Your task to perform on an android device: What's on the menu at Chick-fil-A? Image 0: 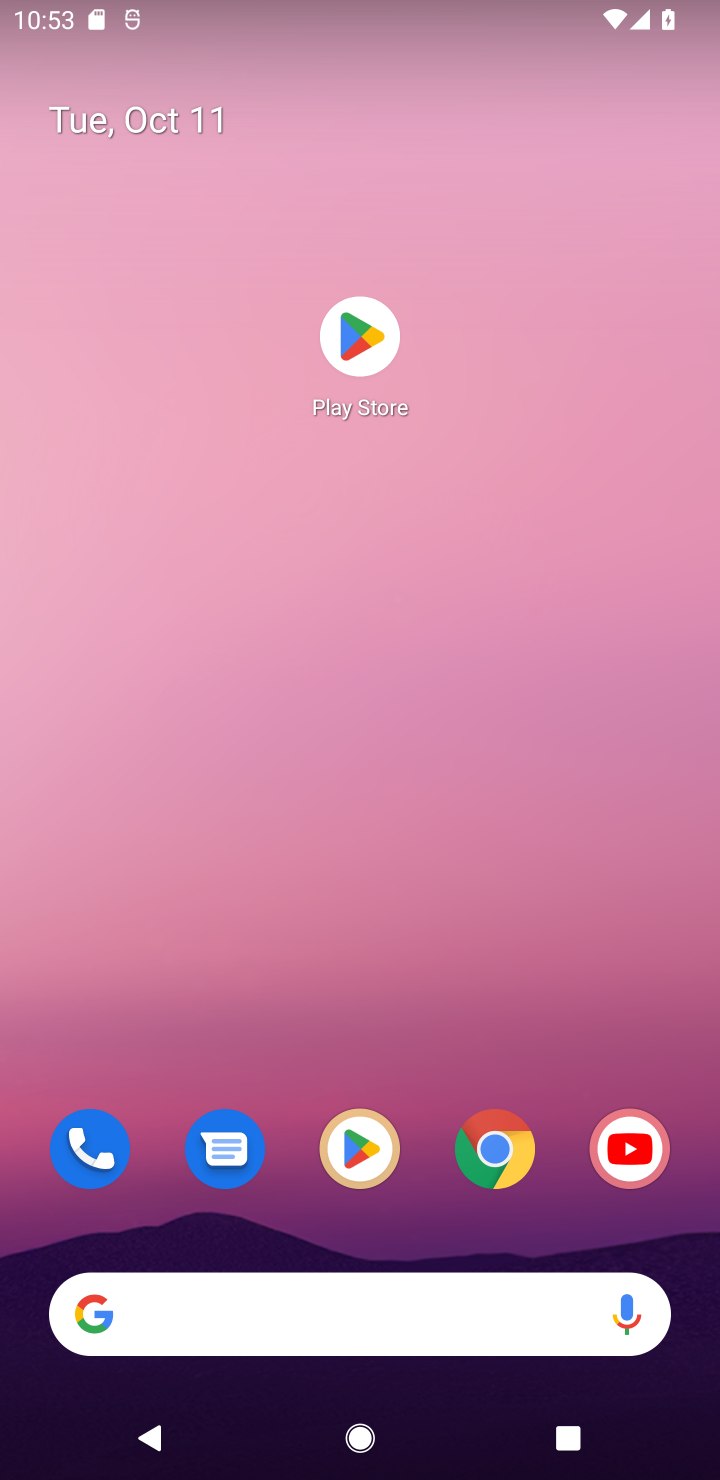
Step 0: click (280, 1299)
Your task to perform on an android device: What's on the menu at Chick-fil-A? Image 1: 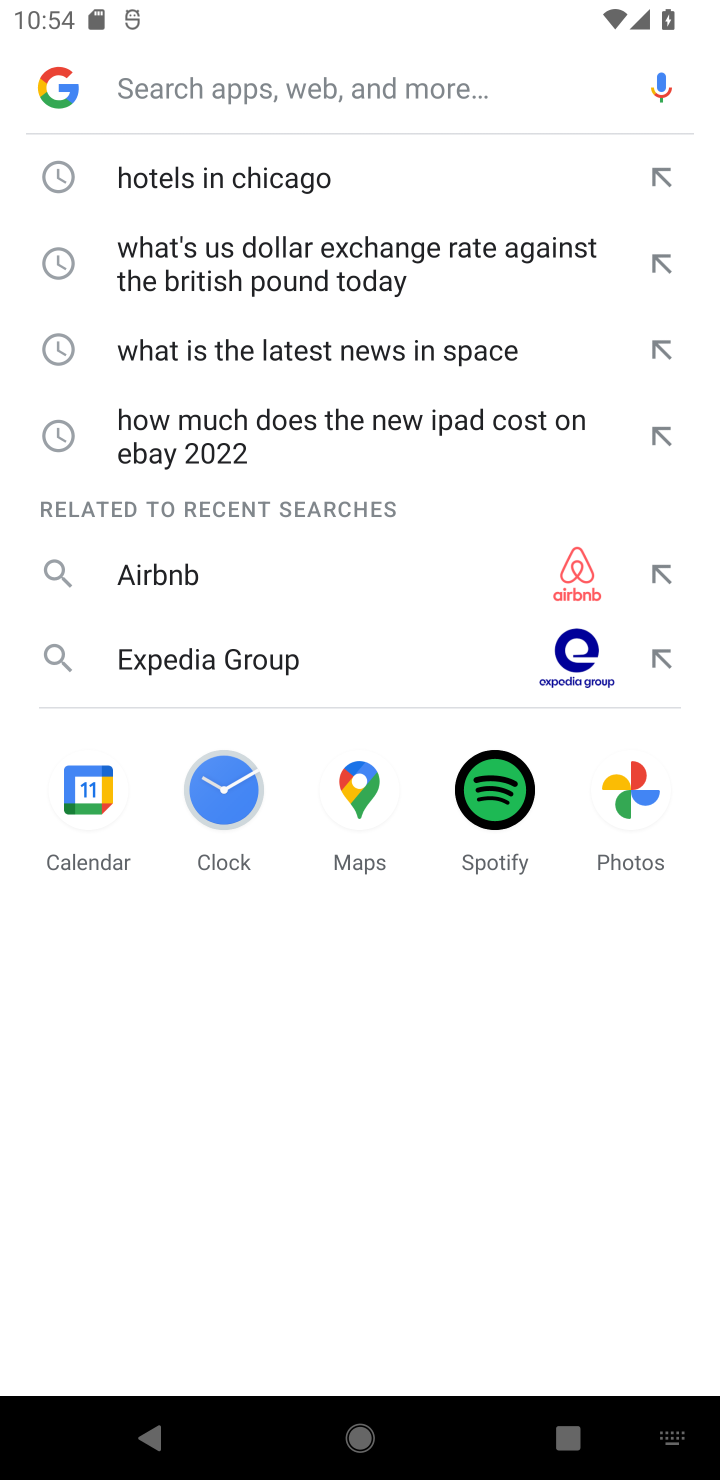
Step 1: type "What's on the menu at Chick-fil-A?"
Your task to perform on an android device: What's on the menu at Chick-fil-A? Image 2: 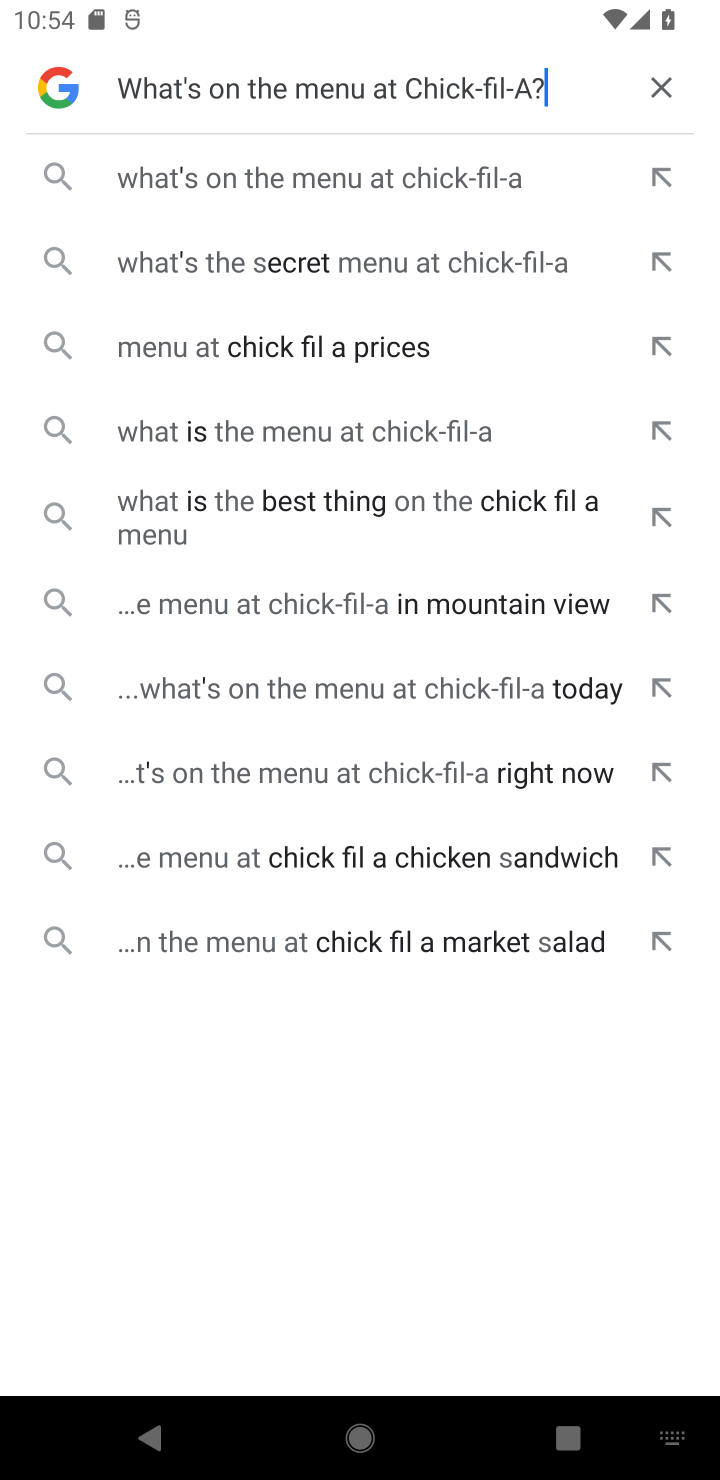
Step 2: click (430, 173)
Your task to perform on an android device: What's on the menu at Chick-fil-A? Image 3: 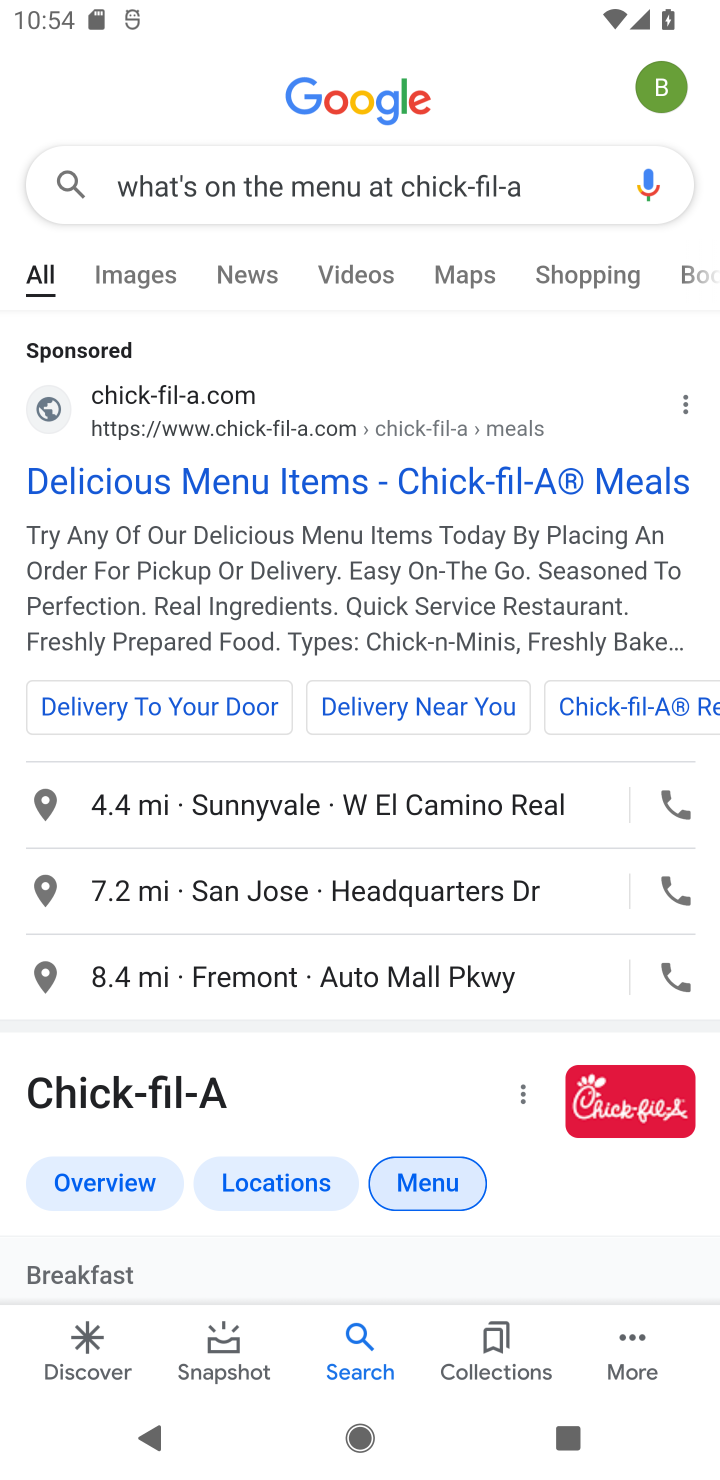
Step 3: click (426, 1201)
Your task to perform on an android device: What's on the menu at Chick-fil-A? Image 4: 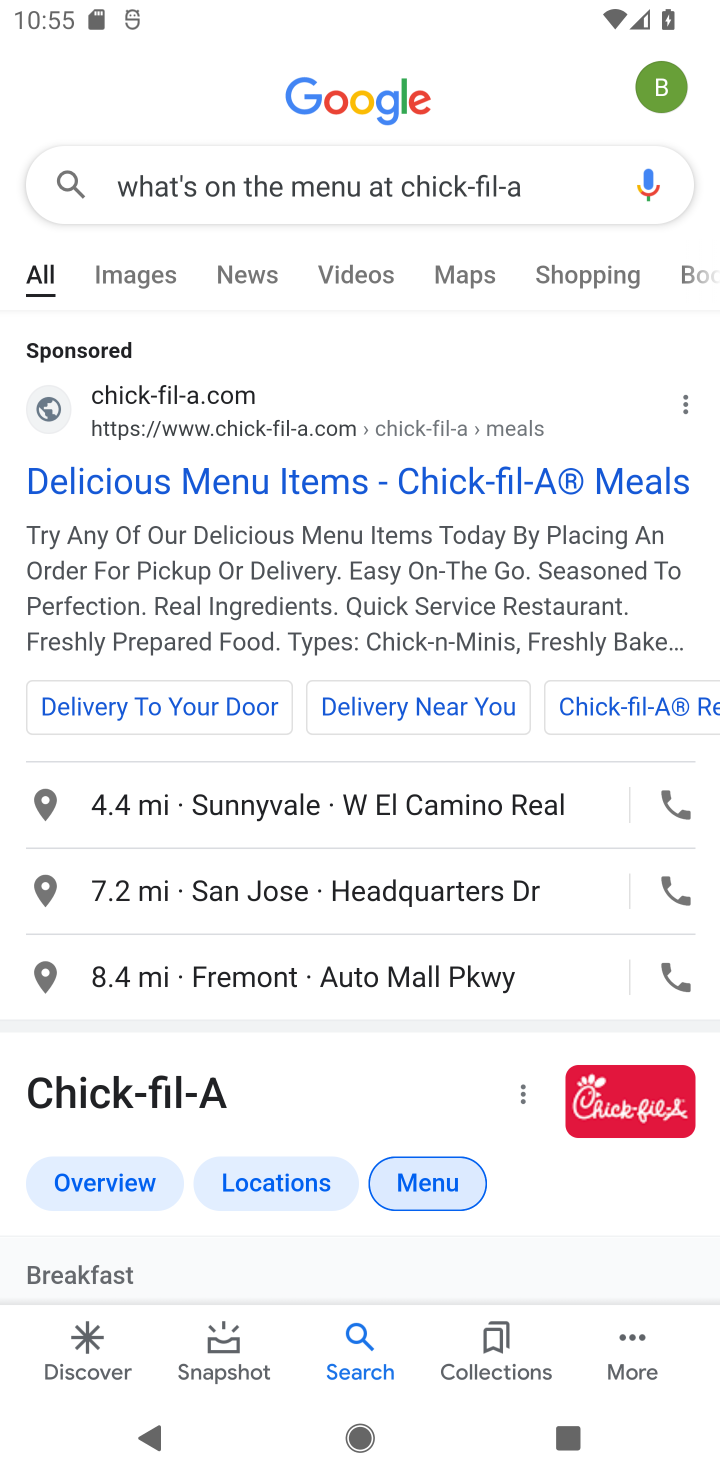
Step 4: task complete